Your task to perform on an android device: check data usage Image 0: 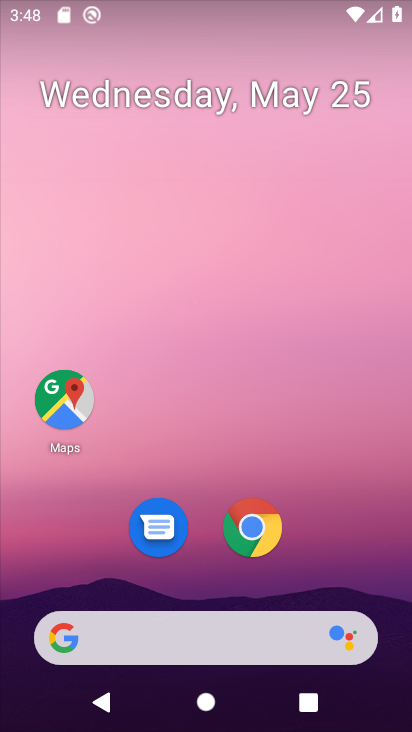
Step 0: drag from (71, 609) to (194, 222)
Your task to perform on an android device: check data usage Image 1: 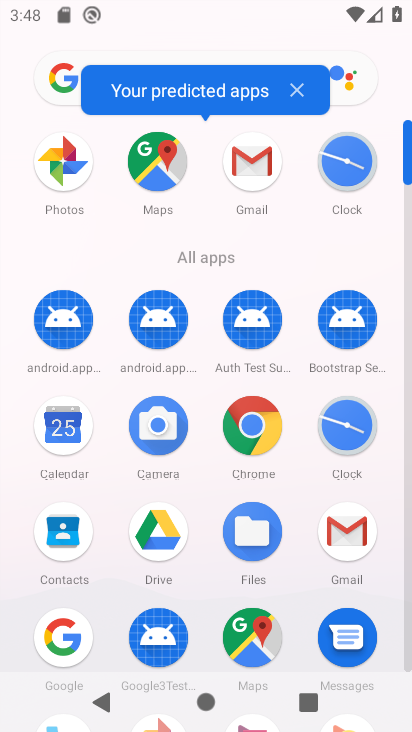
Step 1: drag from (167, 653) to (242, 403)
Your task to perform on an android device: check data usage Image 2: 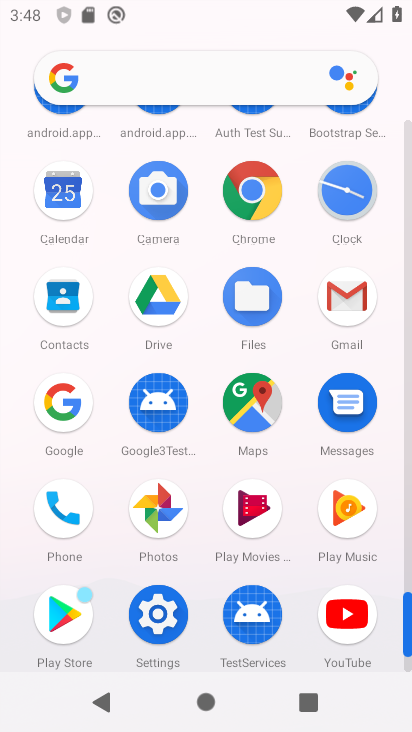
Step 2: click (155, 632)
Your task to perform on an android device: check data usage Image 3: 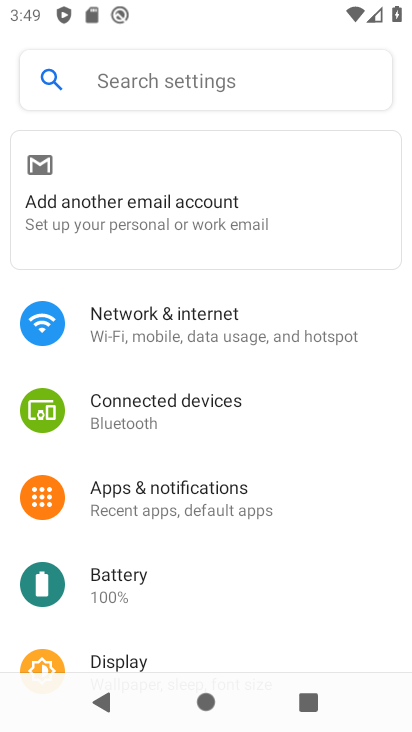
Step 3: click (291, 326)
Your task to perform on an android device: check data usage Image 4: 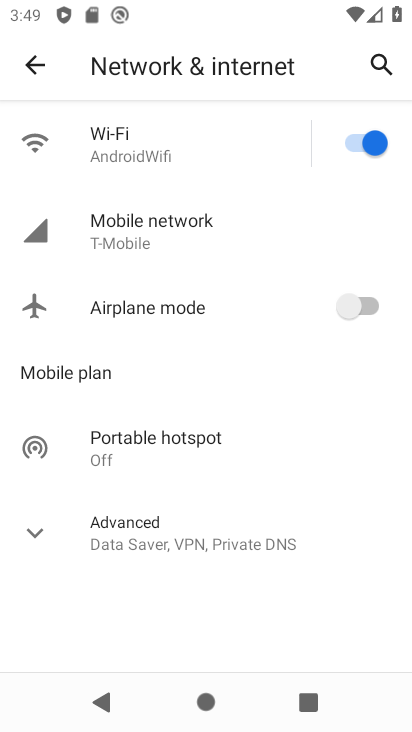
Step 4: click (172, 233)
Your task to perform on an android device: check data usage Image 5: 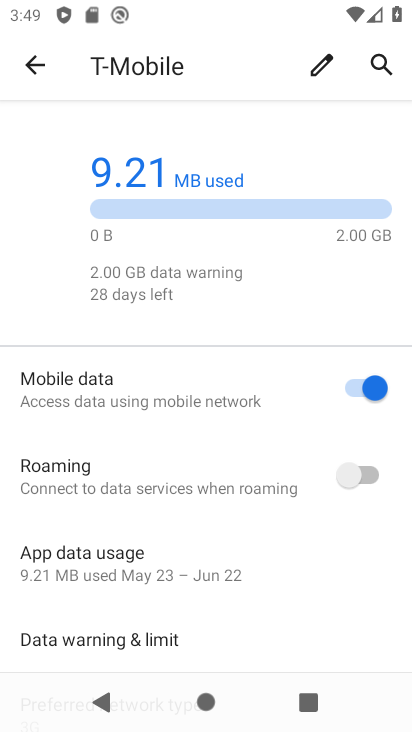
Step 5: click (204, 576)
Your task to perform on an android device: check data usage Image 6: 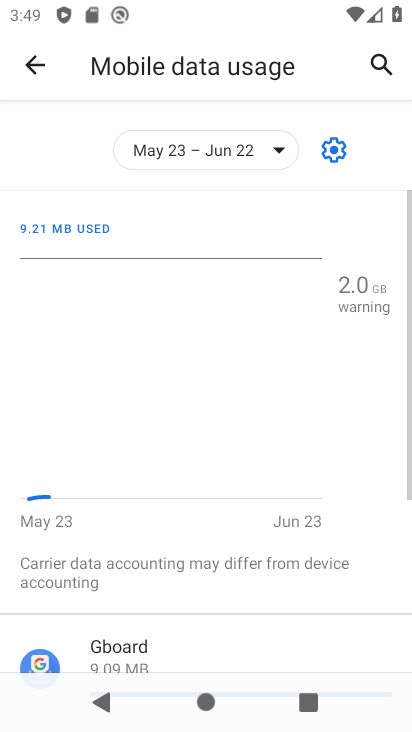
Step 6: task complete